Your task to perform on an android device: What's the weather today? Image 0: 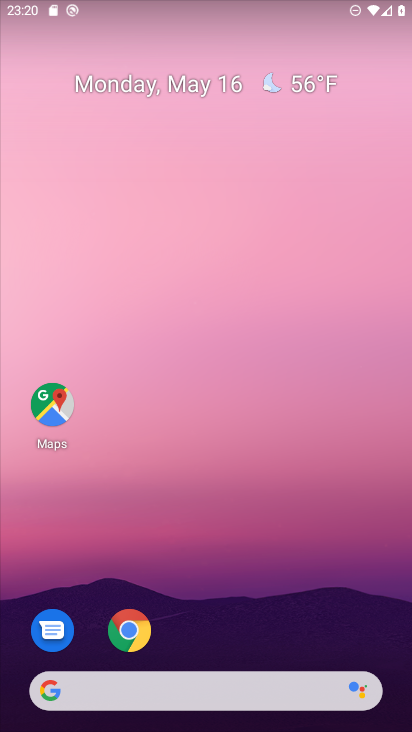
Step 0: click (309, 84)
Your task to perform on an android device: What's the weather today? Image 1: 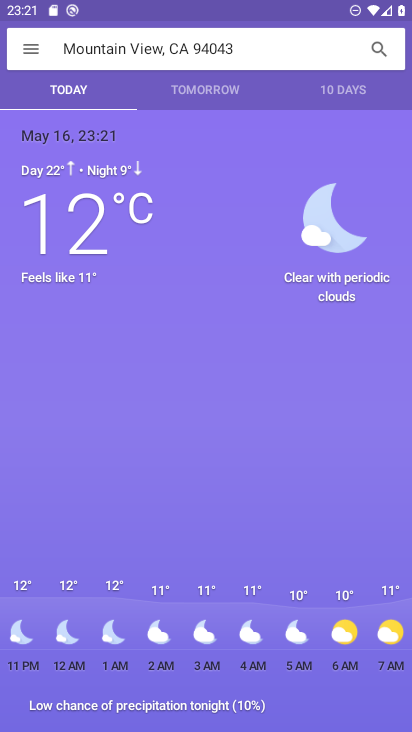
Step 1: task complete